Your task to perform on an android device: turn notification dots on Image 0: 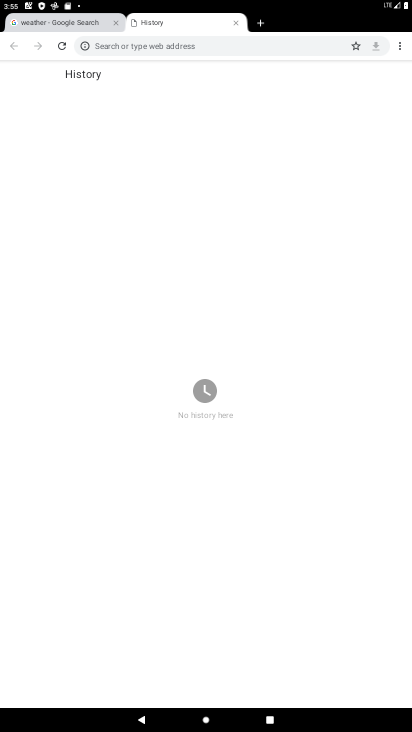
Step 0: press home button
Your task to perform on an android device: turn notification dots on Image 1: 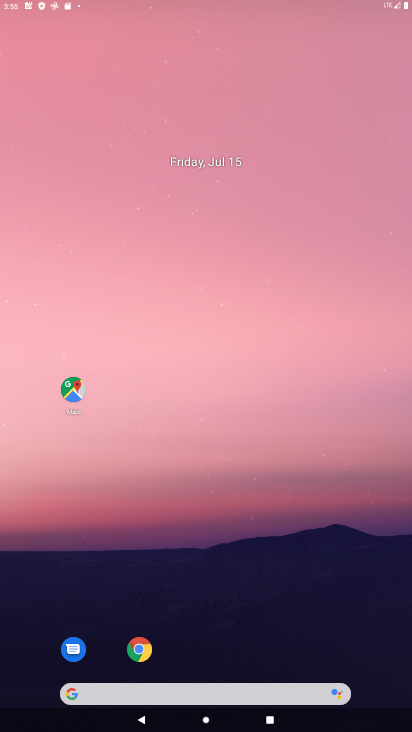
Step 1: drag from (323, 608) to (266, 154)
Your task to perform on an android device: turn notification dots on Image 2: 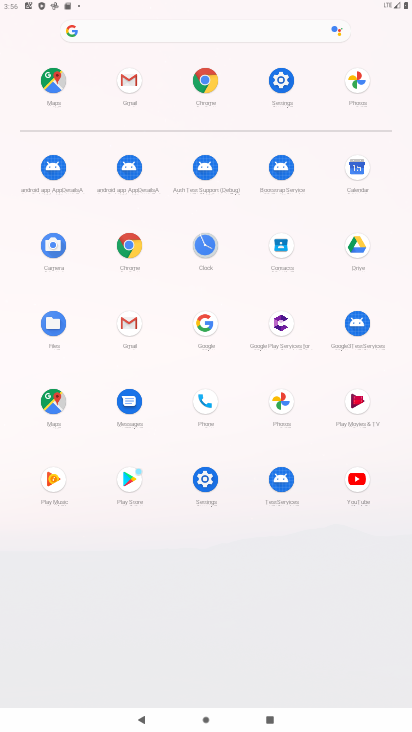
Step 2: click (282, 78)
Your task to perform on an android device: turn notification dots on Image 3: 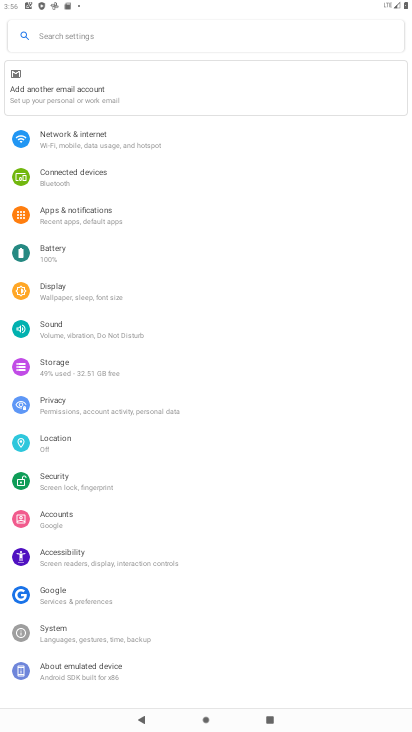
Step 3: click (74, 211)
Your task to perform on an android device: turn notification dots on Image 4: 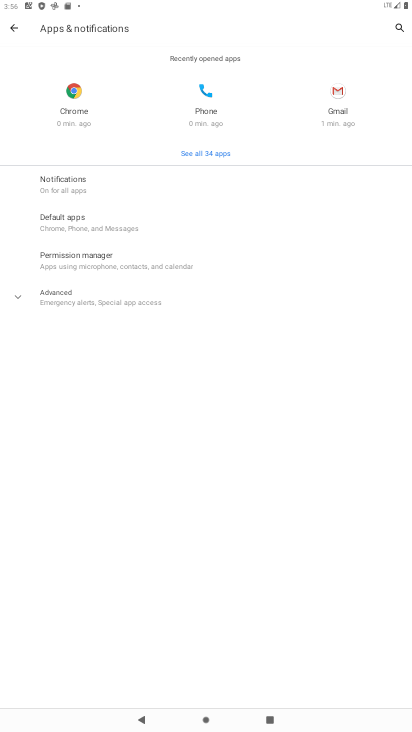
Step 4: click (66, 196)
Your task to perform on an android device: turn notification dots on Image 5: 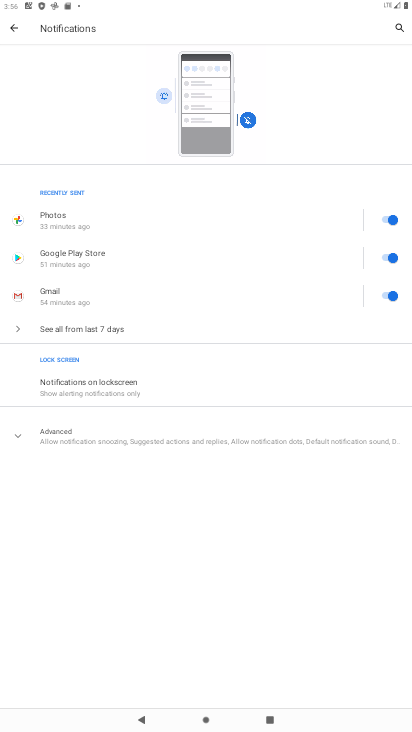
Step 5: click (148, 435)
Your task to perform on an android device: turn notification dots on Image 6: 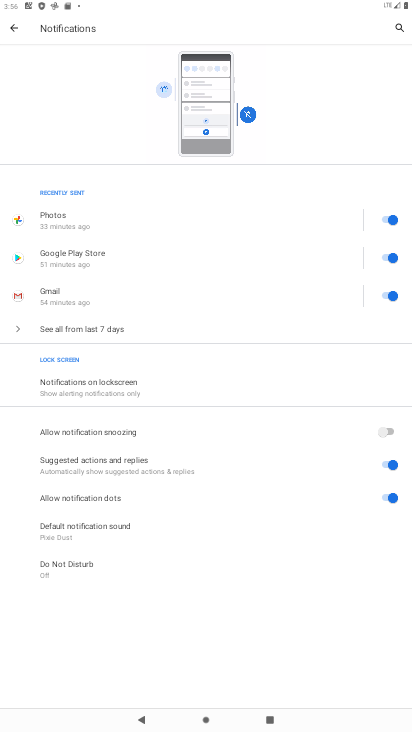
Step 6: task complete